Your task to perform on an android device: open app "Adobe Express: Graphic Design" (install if not already installed) and enter user name: "deliveries@gmail.com" and password: "regimentation" Image 0: 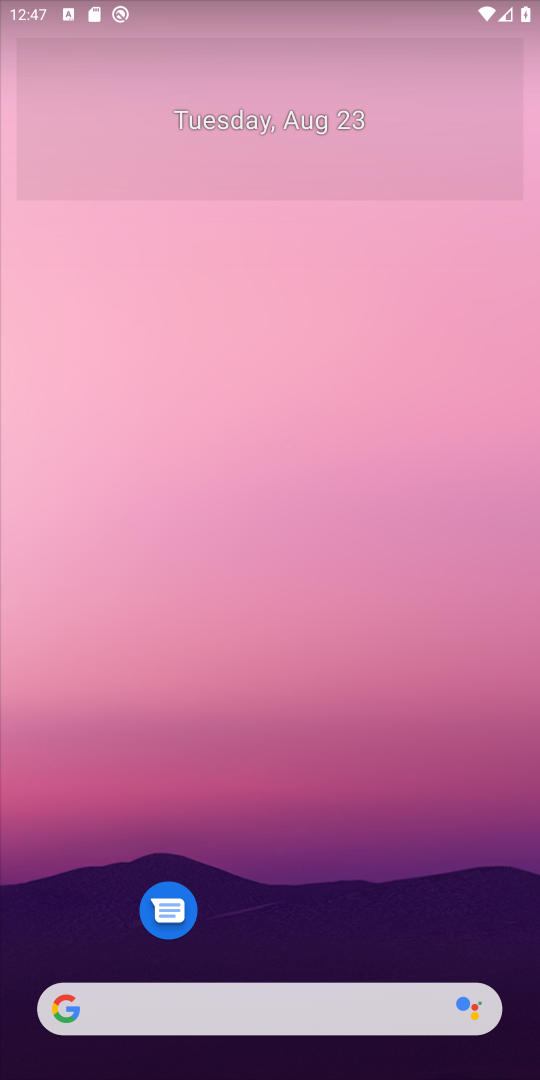
Step 0: drag from (452, 697) to (528, 48)
Your task to perform on an android device: open app "Adobe Express: Graphic Design" (install if not already installed) and enter user name: "deliveries@gmail.com" and password: "regimentation" Image 1: 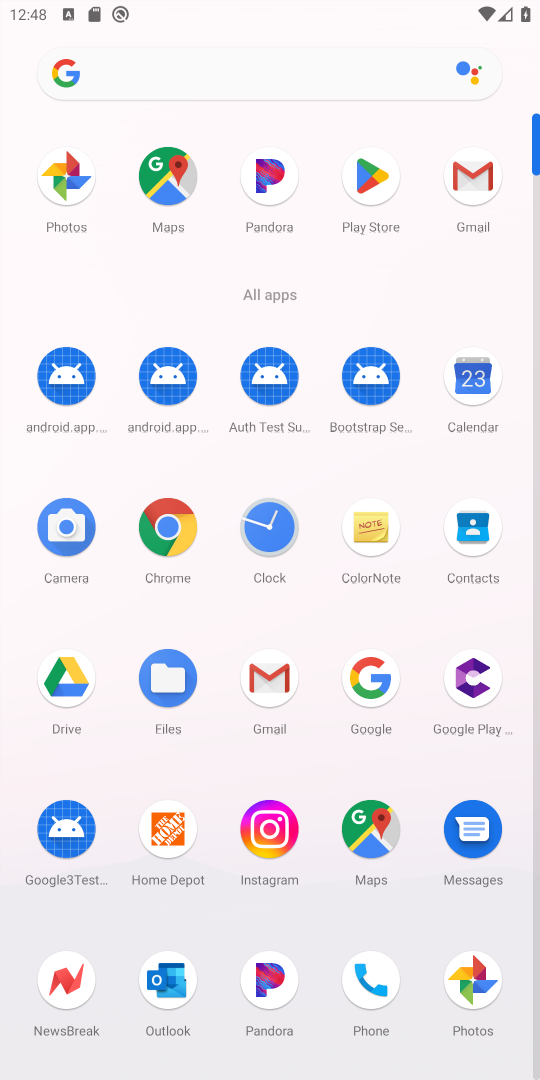
Step 1: click (368, 182)
Your task to perform on an android device: open app "Adobe Express: Graphic Design" (install if not already installed) and enter user name: "deliveries@gmail.com" and password: "regimentation" Image 2: 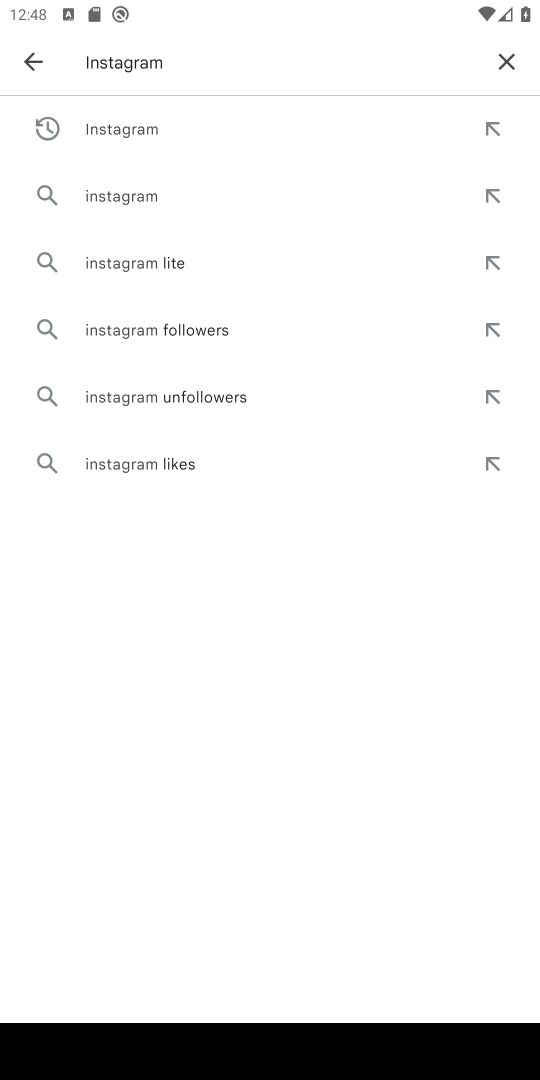
Step 2: press enter
Your task to perform on an android device: open app "Adobe Express: Graphic Design" (install if not already installed) and enter user name: "deliveries@gmail.com" and password: "regimentation" Image 3: 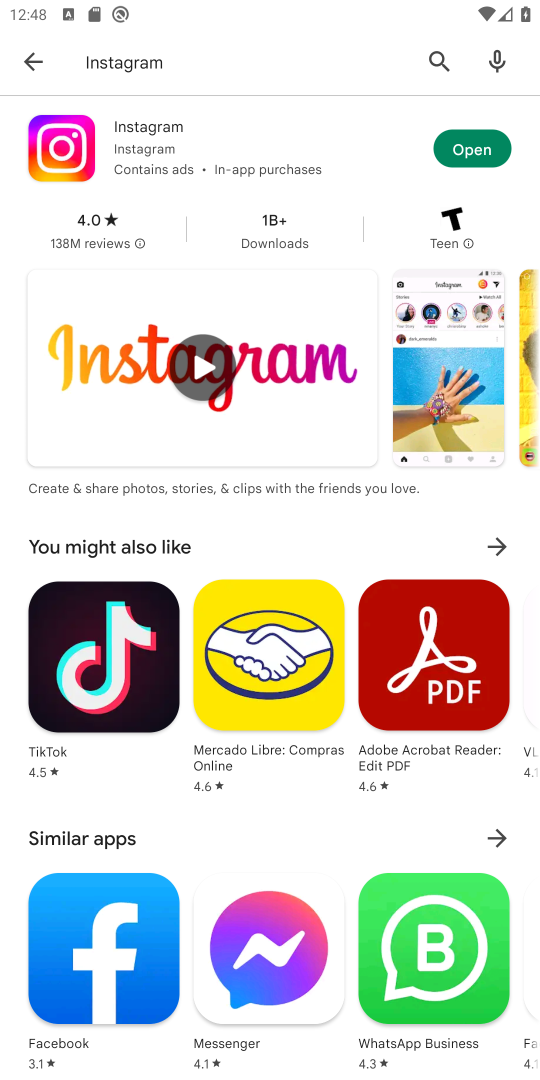
Step 3: press back button
Your task to perform on an android device: open app "Adobe Express: Graphic Design" (install if not already installed) and enter user name: "deliveries@gmail.com" and password: "regimentation" Image 4: 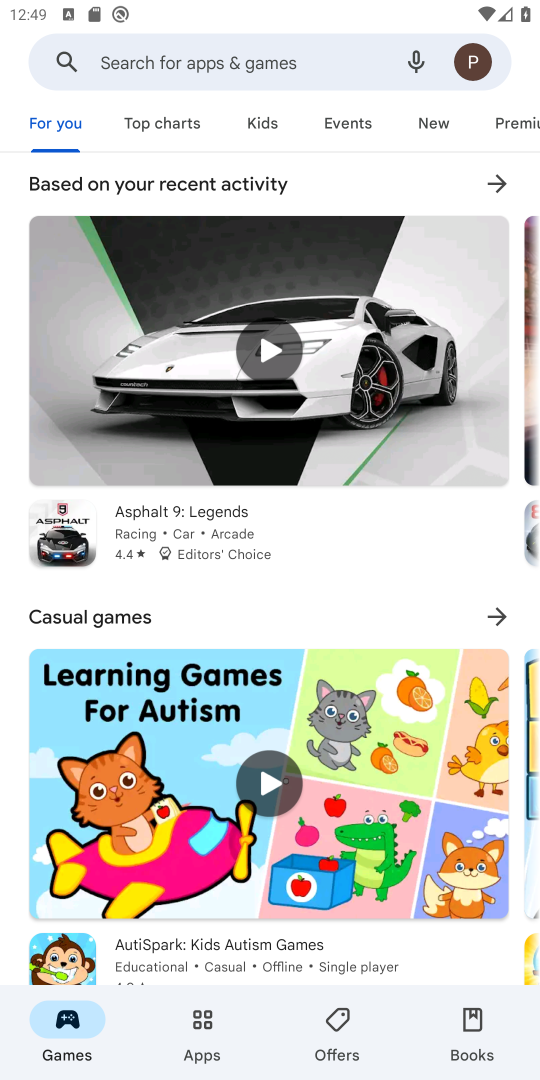
Step 4: click (284, 57)
Your task to perform on an android device: open app "Adobe Express: Graphic Design" (install if not already installed) and enter user name: "deliveries@gmail.com" and password: "regimentation" Image 5: 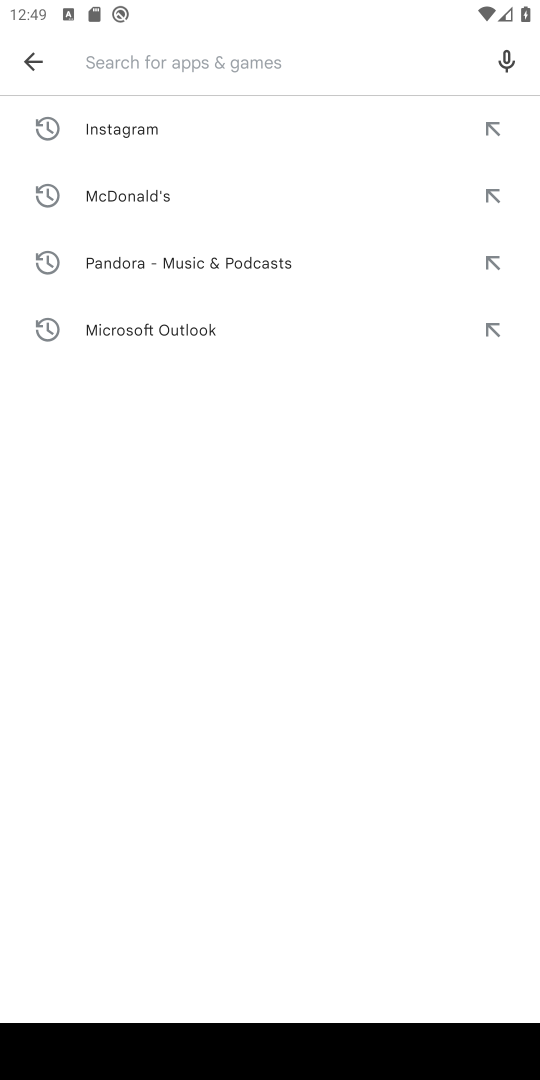
Step 5: type "Adobe Express: Graphic Design"
Your task to perform on an android device: open app "Adobe Express: Graphic Design" (install if not already installed) and enter user name: "deliveries@gmail.com" and password: "regimentation" Image 6: 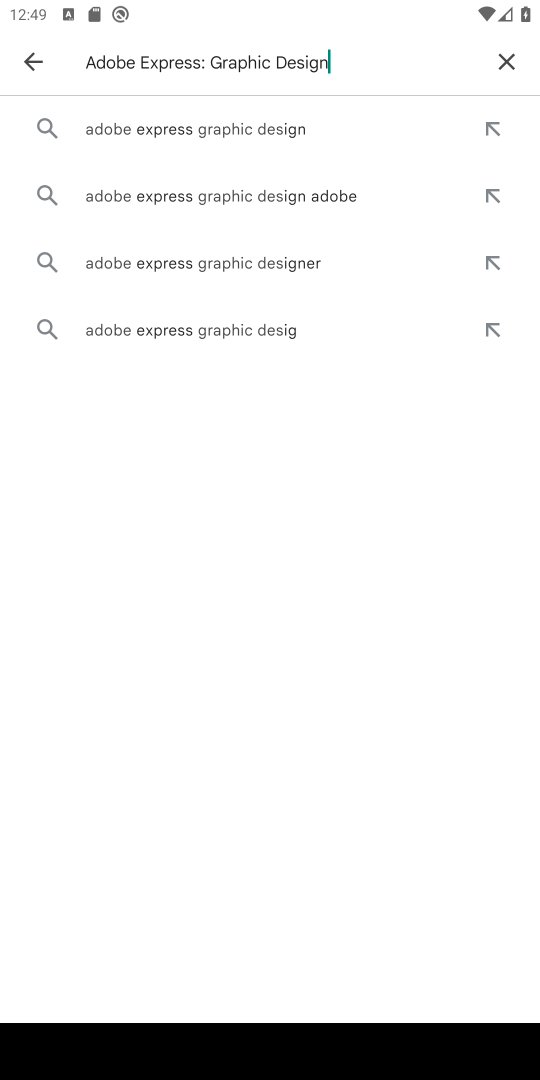
Step 6: press enter
Your task to perform on an android device: open app "Adobe Express: Graphic Design" (install if not already installed) and enter user name: "deliveries@gmail.com" and password: "regimentation" Image 7: 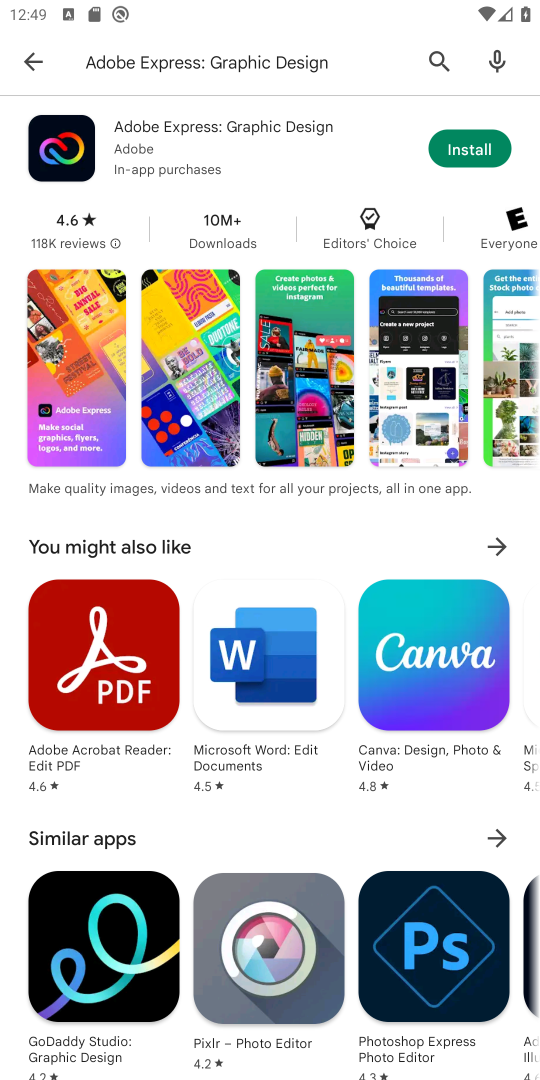
Step 7: click (479, 145)
Your task to perform on an android device: open app "Adobe Express: Graphic Design" (install if not already installed) and enter user name: "deliveries@gmail.com" and password: "regimentation" Image 8: 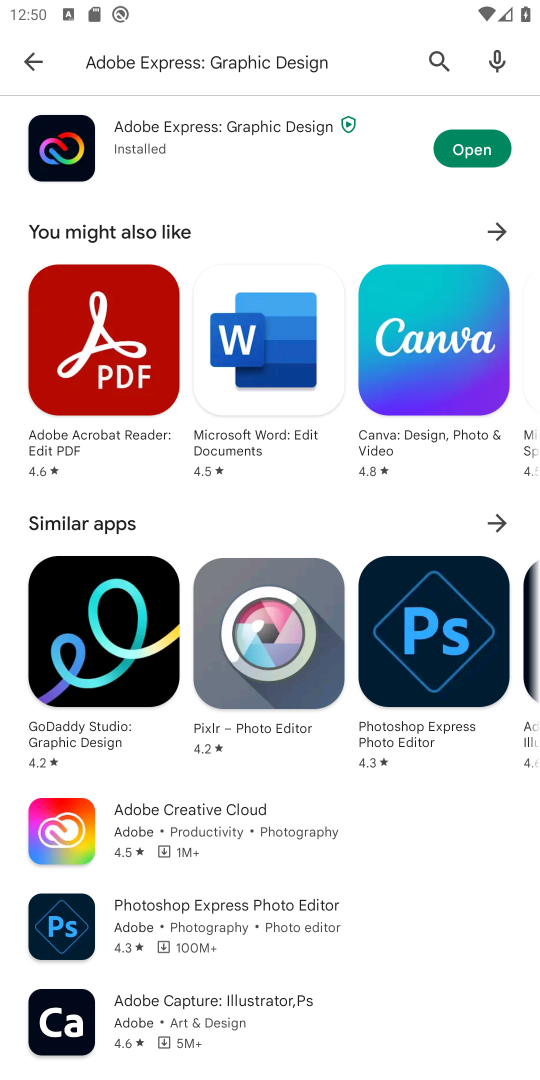
Step 8: click (473, 167)
Your task to perform on an android device: open app "Adobe Express: Graphic Design" (install if not already installed) and enter user name: "deliveries@gmail.com" and password: "regimentation" Image 9: 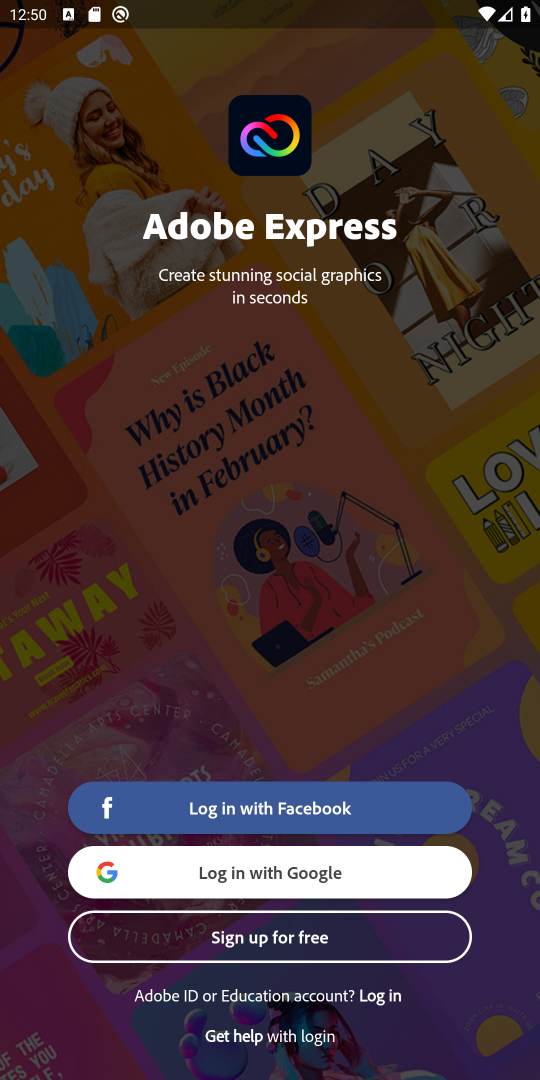
Step 9: click (258, 815)
Your task to perform on an android device: open app "Adobe Express: Graphic Design" (install if not already installed) and enter user name: "deliveries@gmail.com" and password: "regimentation" Image 10: 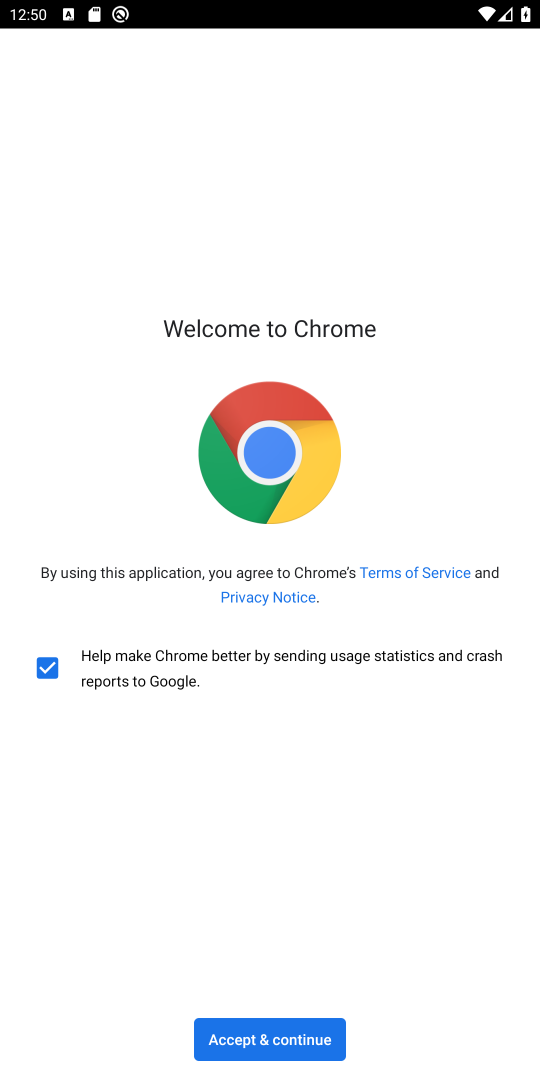
Step 10: click (338, 1029)
Your task to perform on an android device: open app "Adobe Express: Graphic Design" (install if not already installed) and enter user name: "deliveries@gmail.com" and password: "regimentation" Image 11: 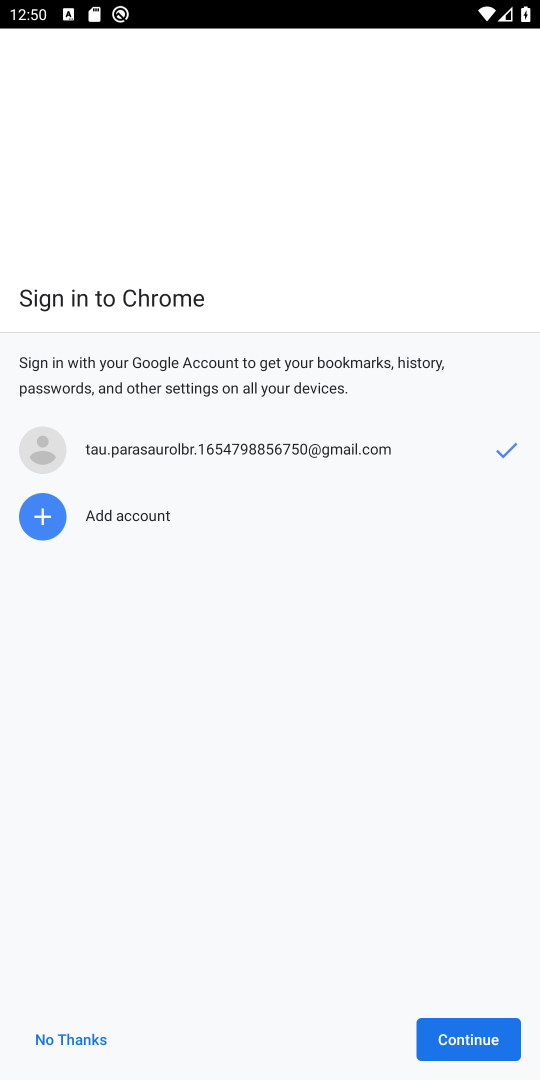
Step 11: click (56, 1035)
Your task to perform on an android device: open app "Adobe Express: Graphic Design" (install if not already installed) and enter user name: "deliveries@gmail.com" and password: "regimentation" Image 12: 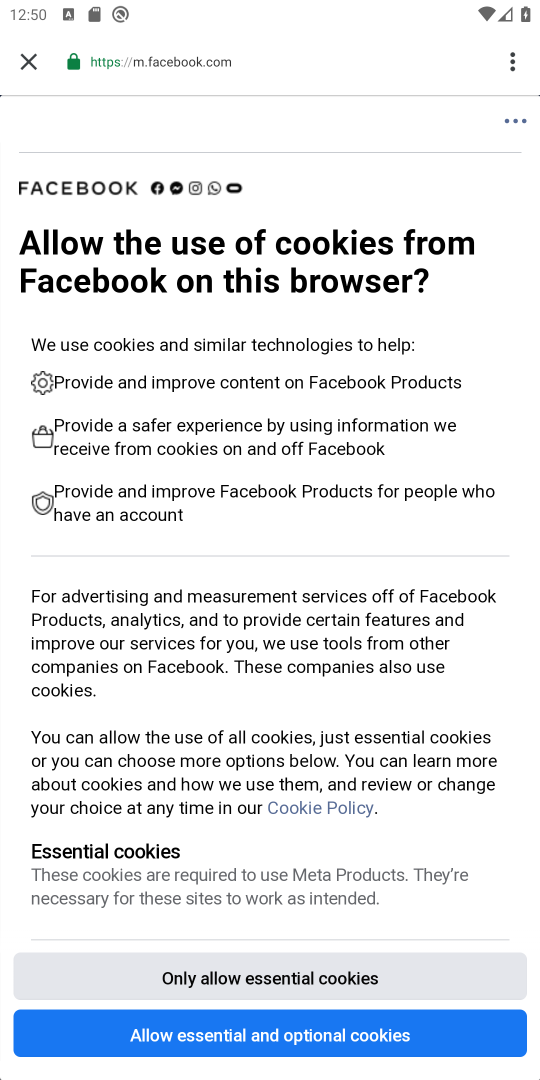
Step 12: click (246, 1045)
Your task to perform on an android device: open app "Adobe Express: Graphic Design" (install if not already installed) and enter user name: "deliveries@gmail.com" and password: "regimentation" Image 13: 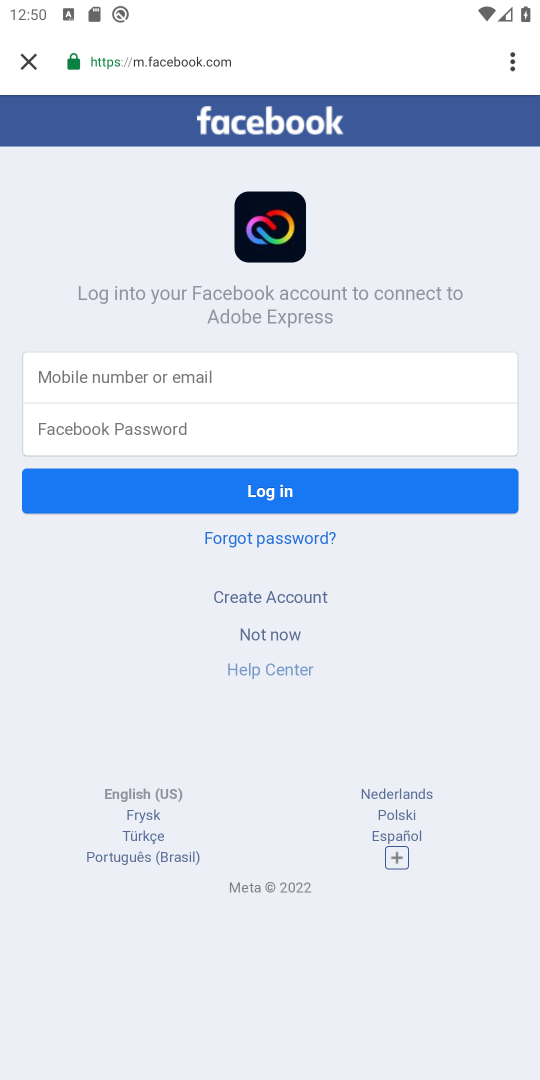
Step 13: click (157, 384)
Your task to perform on an android device: open app "Adobe Express: Graphic Design" (install if not already installed) and enter user name: "deliveries@gmail.com" and password: "regimentation" Image 14: 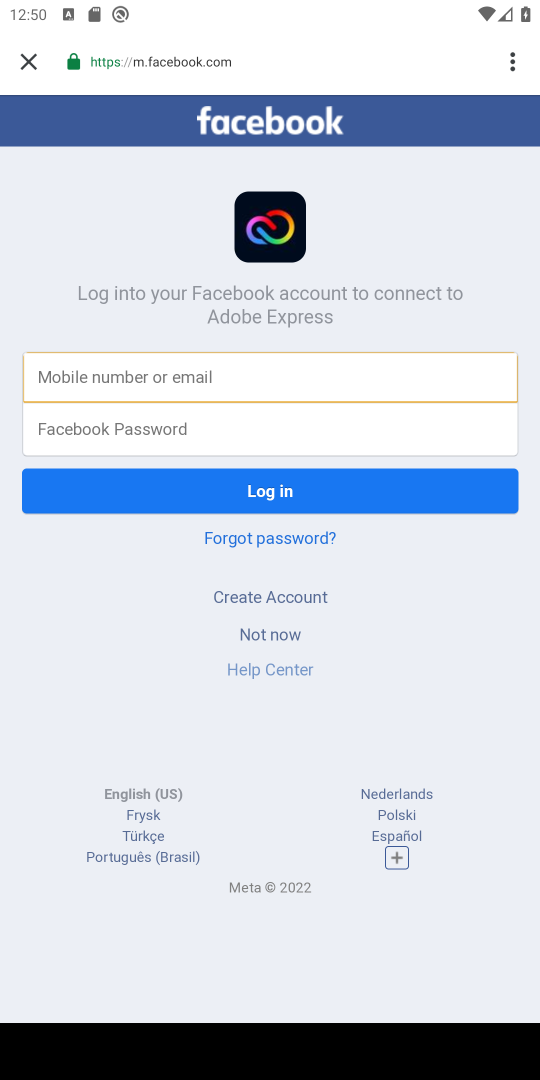
Step 14: type "deliveries@gmail.com"
Your task to perform on an android device: open app "Adobe Express: Graphic Design" (install if not already installed) and enter user name: "deliveries@gmail.com" and password: "regimentation" Image 15: 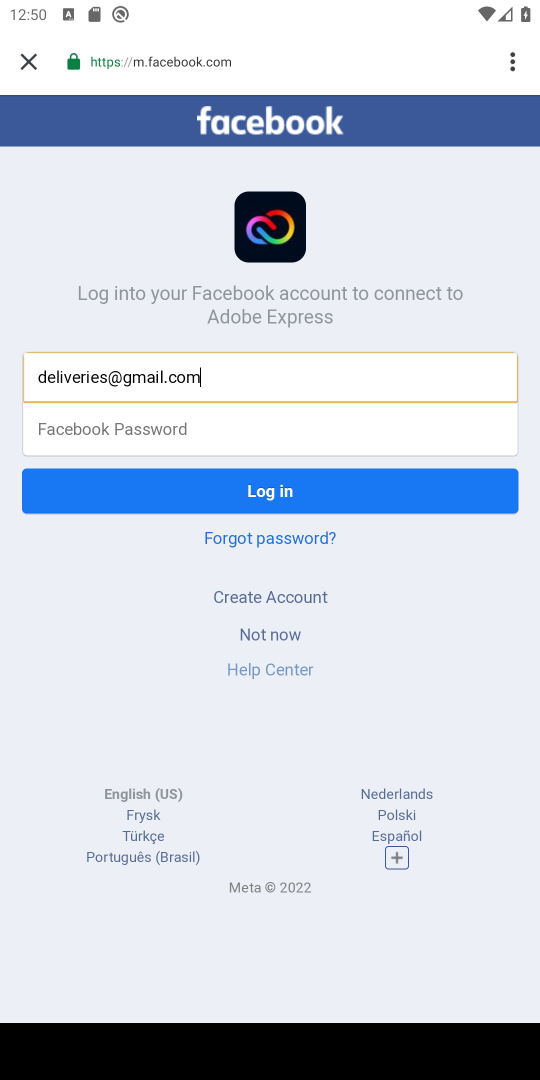
Step 15: press enter
Your task to perform on an android device: open app "Adobe Express: Graphic Design" (install if not already installed) and enter user name: "deliveries@gmail.com" and password: "regimentation" Image 16: 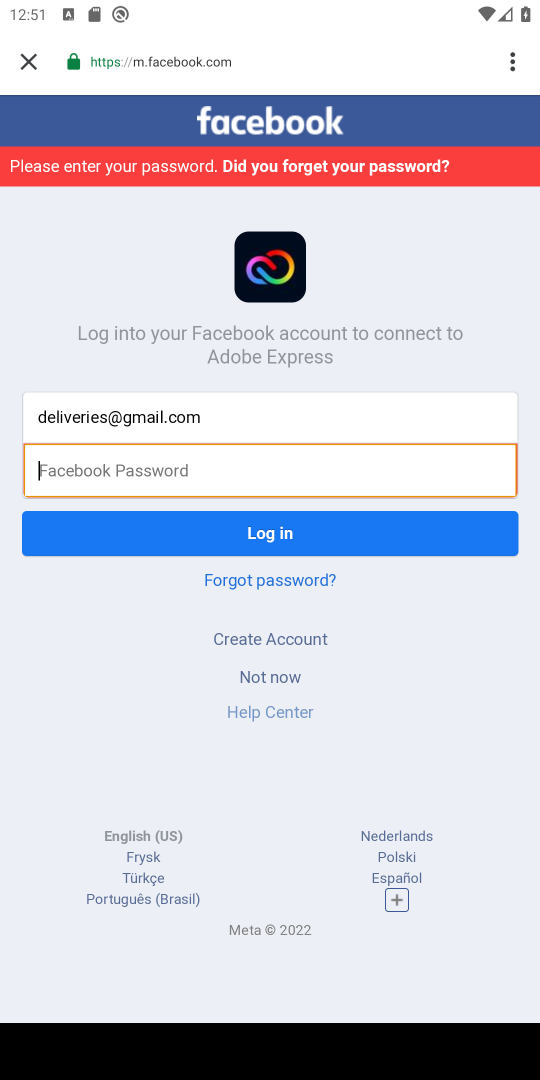
Step 16: type "regimentation"
Your task to perform on an android device: open app "Adobe Express: Graphic Design" (install if not already installed) and enter user name: "deliveries@gmail.com" and password: "regimentation" Image 17: 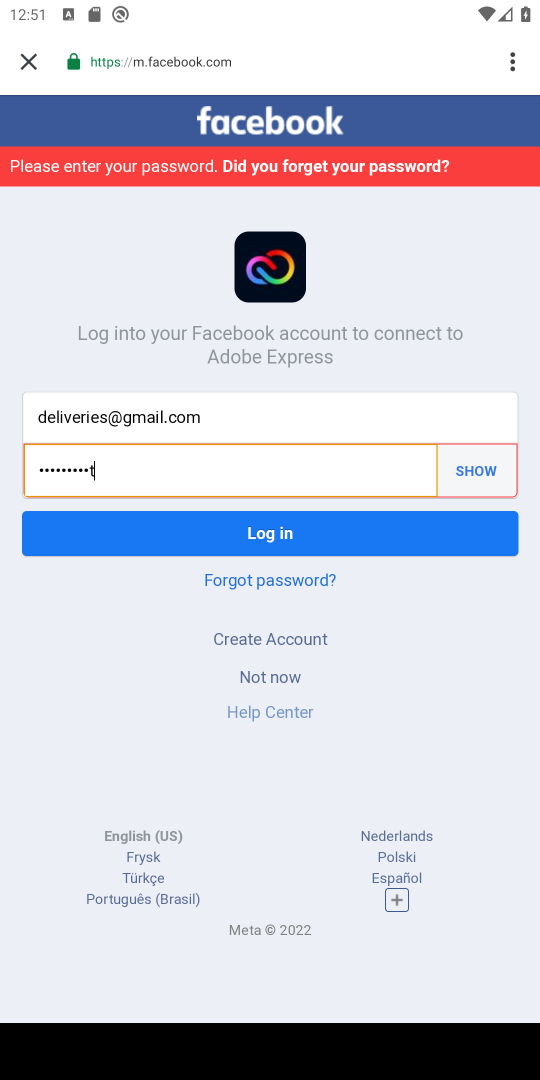
Step 17: press enter
Your task to perform on an android device: open app "Adobe Express: Graphic Design" (install if not already installed) and enter user name: "deliveries@gmail.com" and password: "regimentation" Image 18: 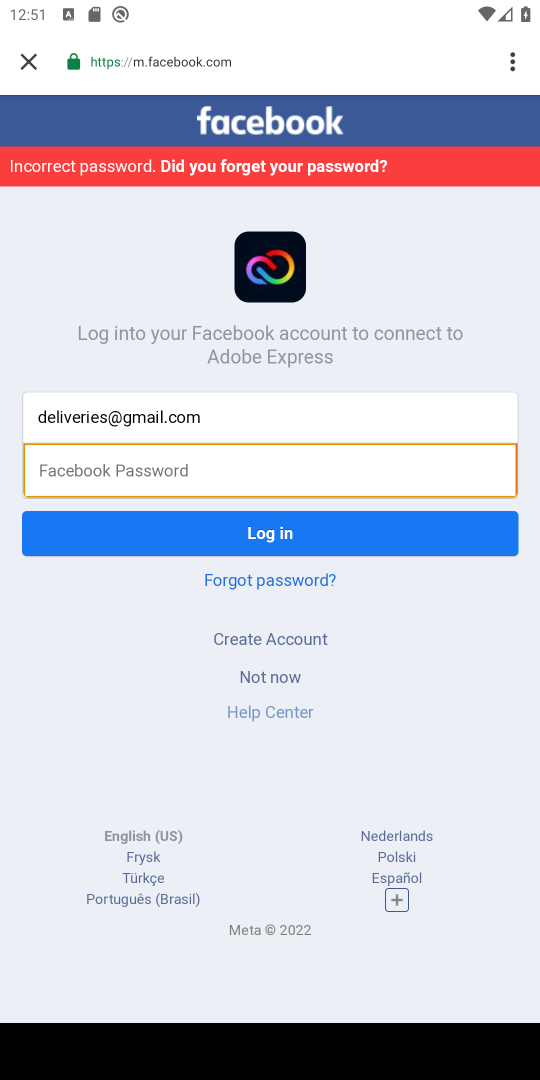
Step 18: task complete